Your task to perform on an android device: toggle notification dots Image 0: 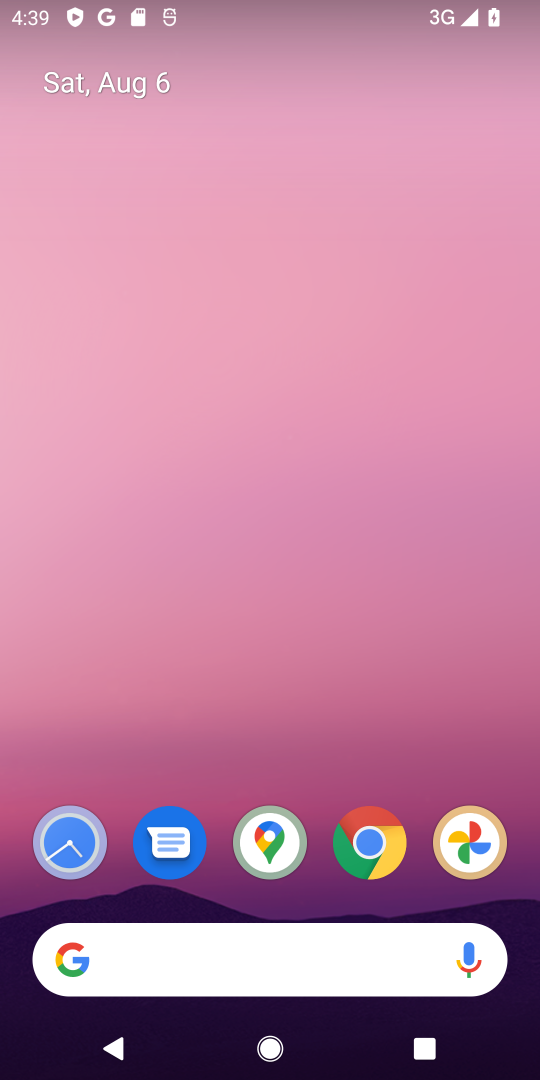
Step 0: drag from (530, 971) to (468, 241)
Your task to perform on an android device: toggle notification dots Image 1: 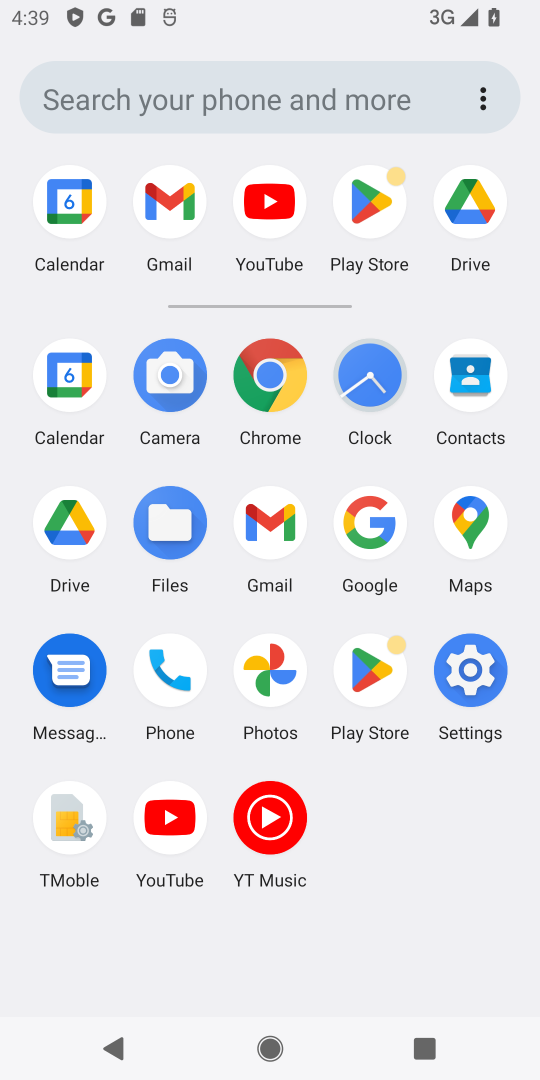
Step 1: click (475, 683)
Your task to perform on an android device: toggle notification dots Image 2: 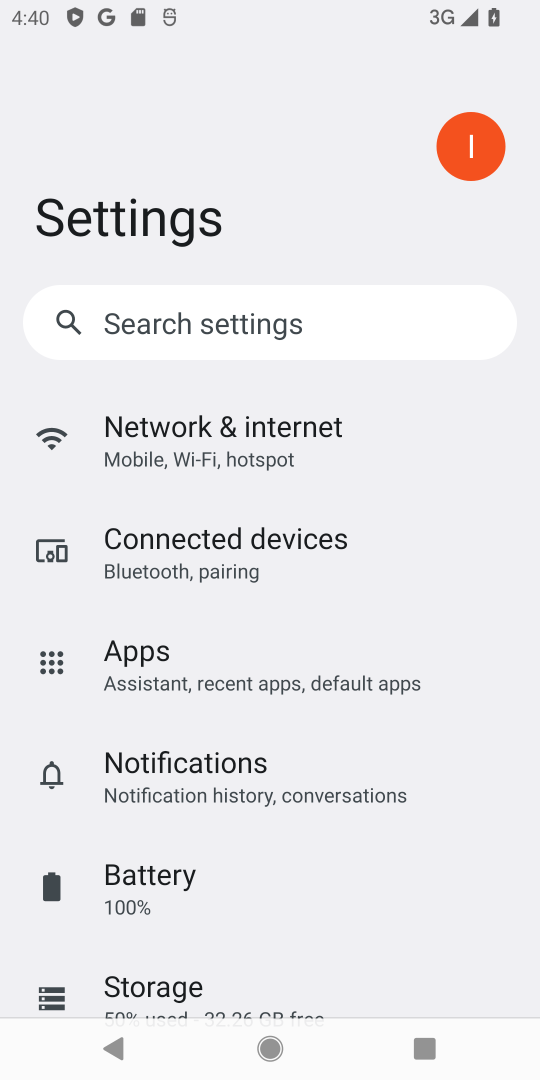
Step 2: click (185, 768)
Your task to perform on an android device: toggle notification dots Image 3: 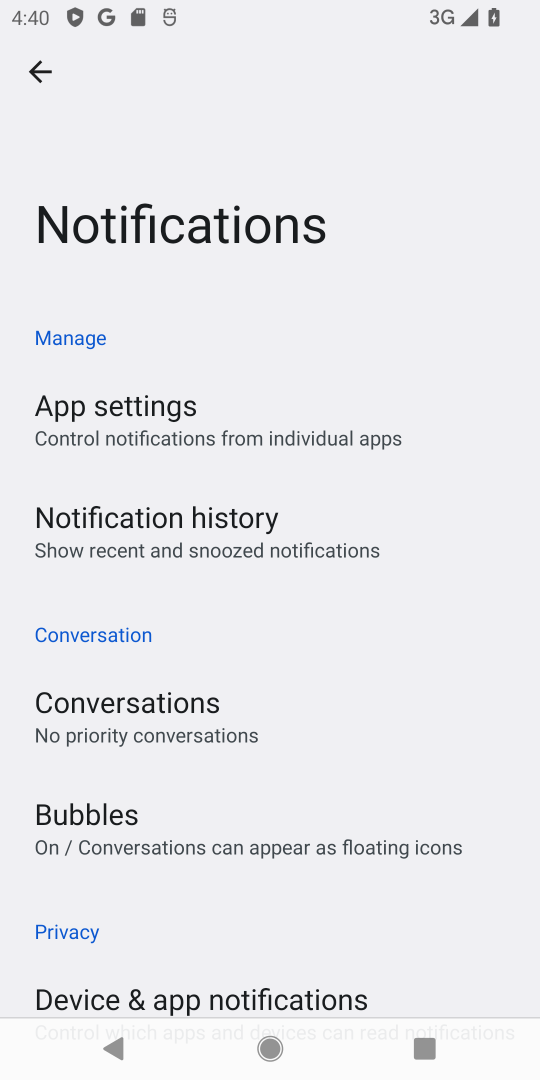
Step 3: drag from (444, 949) to (462, 443)
Your task to perform on an android device: toggle notification dots Image 4: 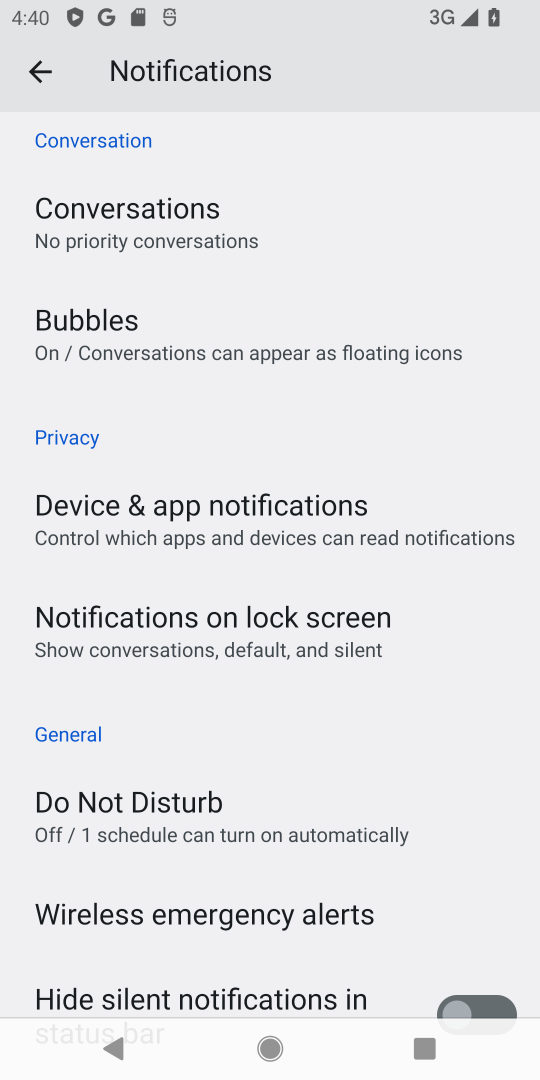
Step 4: drag from (412, 715) to (400, 337)
Your task to perform on an android device: toggle notification dots Image 5: 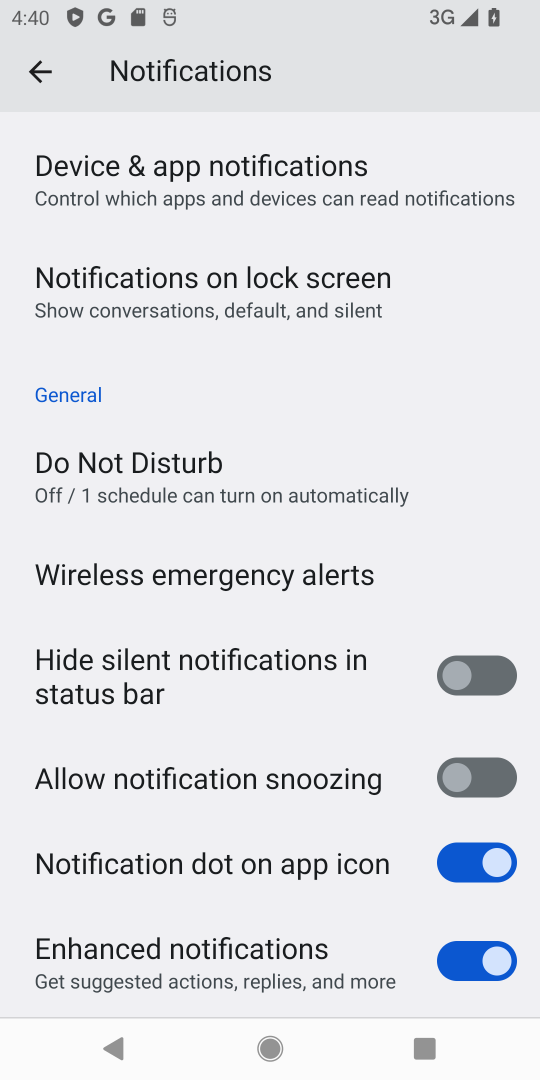
Step 5: click (457, 863)
Your task to perform on an android device: toggle notification dots Image 6: 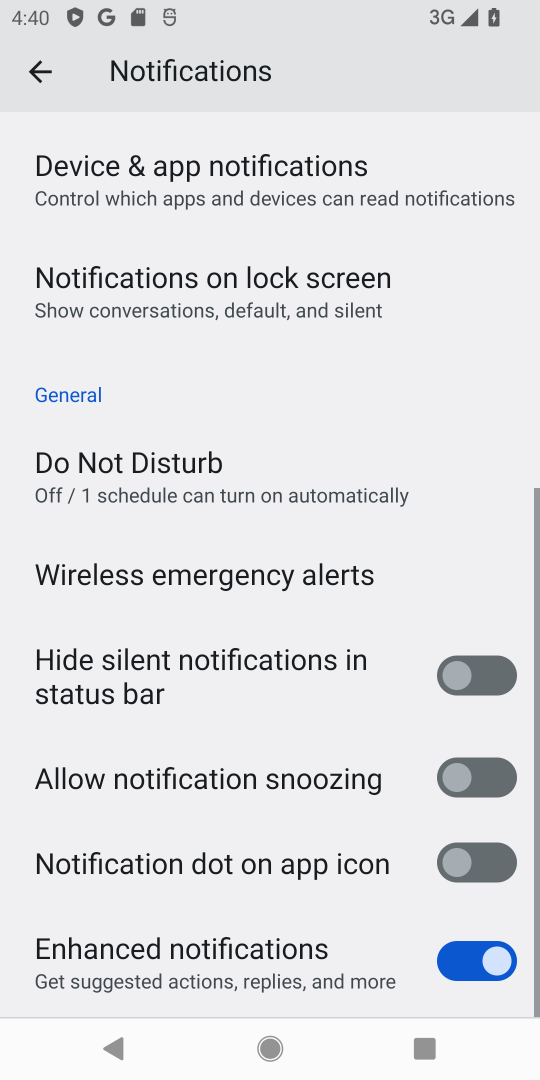
Step 6: task complete